Your task to perform on an android device: Go to wifi settings Image 0: 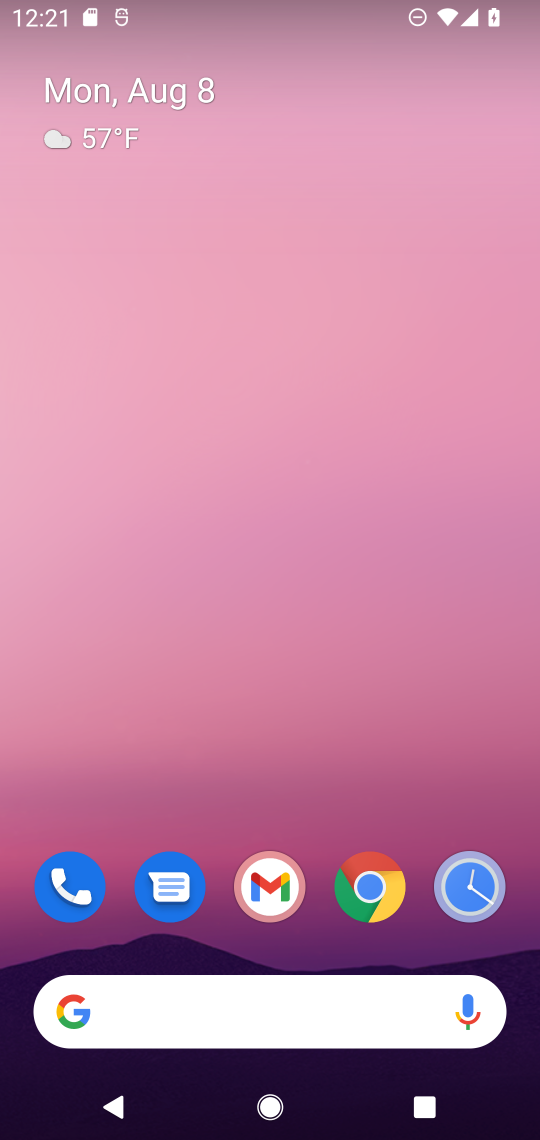
Step 0: drag from (286, 783) to (263, 193)
Your task to perform on an android device: Go to wifi settings Image 1: 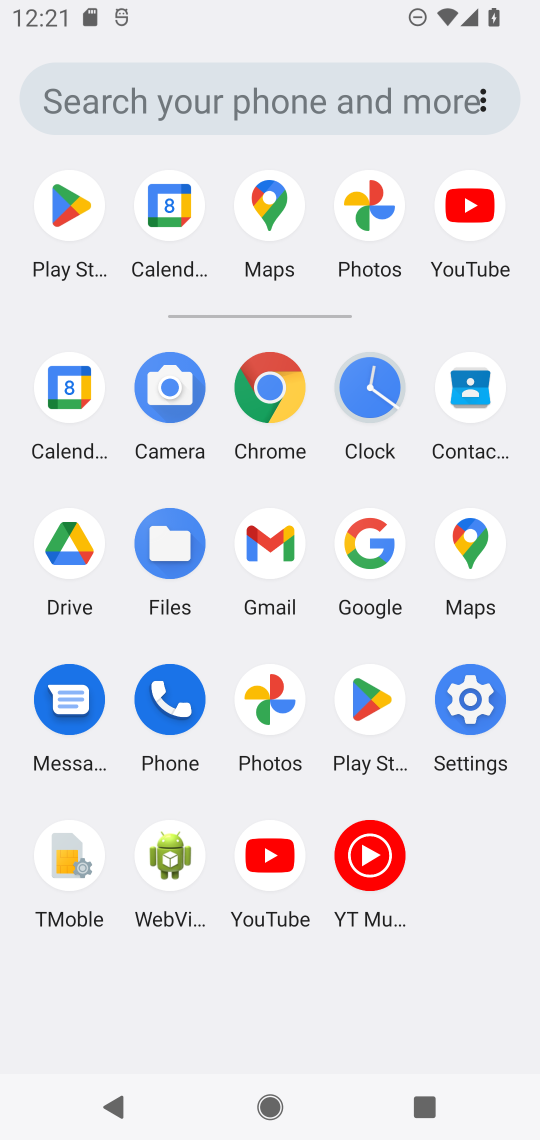
Step 1: click (475, 704)
Your task to perform on an android device: Go to wifi settings Image 2: 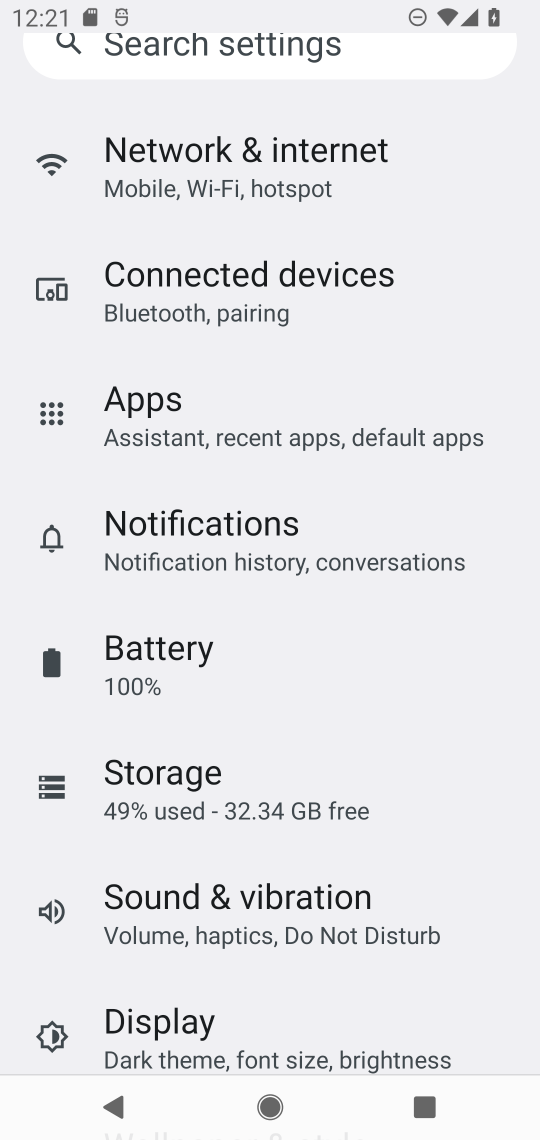
Step 2: click (235, 158)
Your task to perform on an android device: Go to wifi settings Image 3: 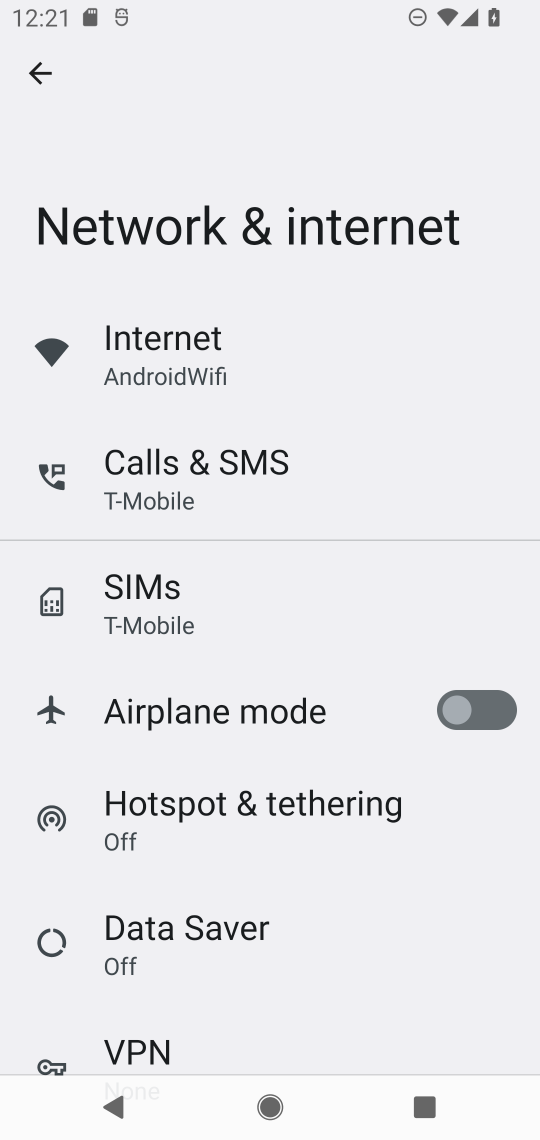
Step 3: click (178, 346)
Your task to perform on an android device: Go to wifi settings Image 4: 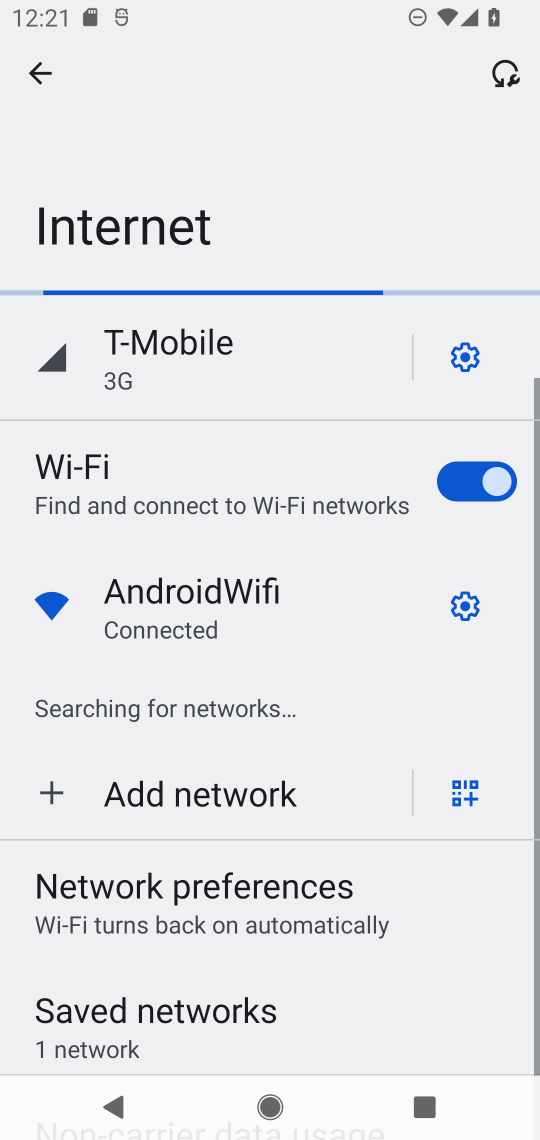
Step 4: task complete